Your task to perform on an android device: turn on priority inbox in the gmail app Image 0: 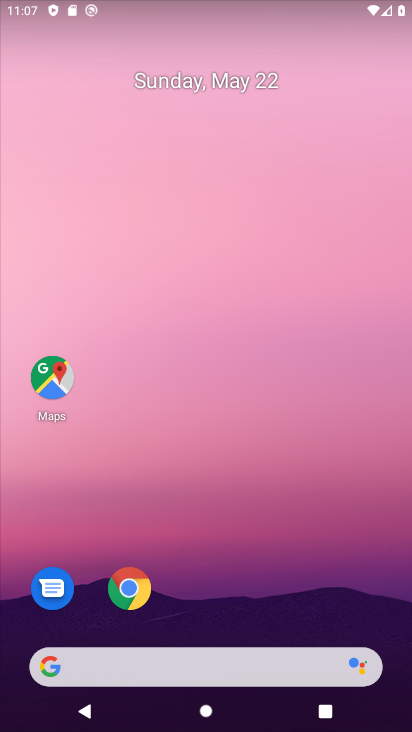
Step 0: drag from (217, 621) to (215, 30)
Your task to perform on an android device: turn on priority inbox in the gmail app Image 1: 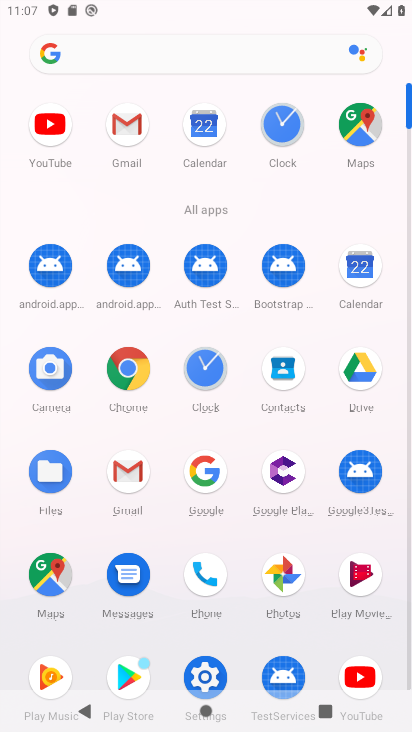
Step 1: click (139, 475)
Your task to perform on an android device: turn on priority inbox in the gmail app Image 2: 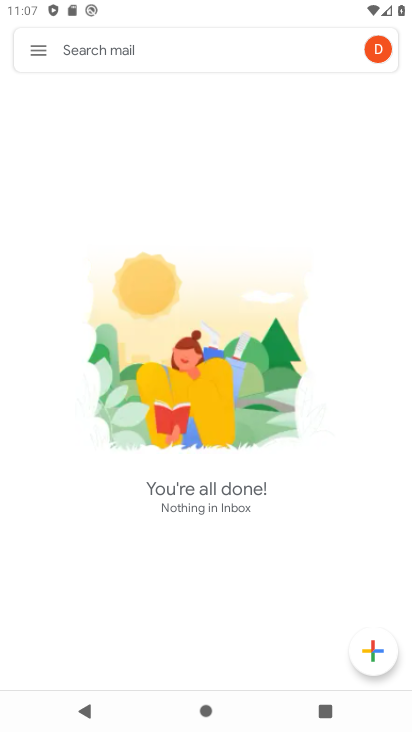
Step 2: click (47, 63)
Your task to perform on an android device: turn on priority inbox in the gmail app Image 3: 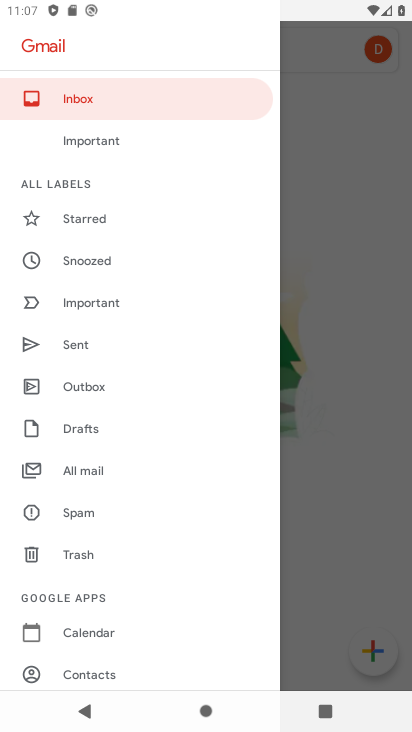
Step 3: drag from (126, 547) to (124, 65)
Your task to perform on an android device: turn on priority inbox in the gmail app Image 4: 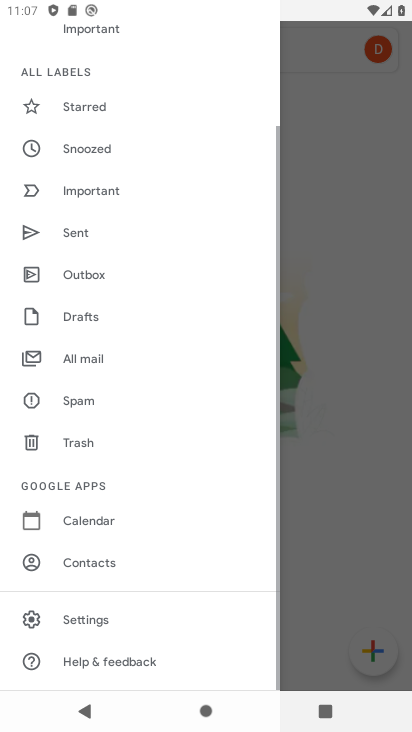
Step 4: click (95, 616)
Your task to perform on an android device: turn on priority inbox in the gmail app Image 5: 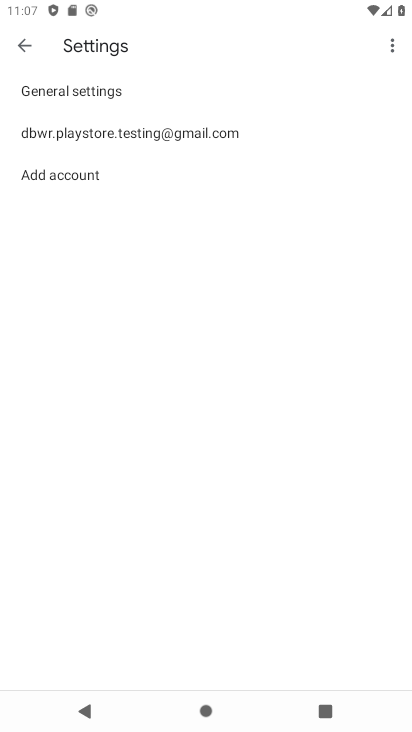
Step 5: click (67, 127)
Your task to perform on an android device: turn on priority inbox in the gmail app Image 6: 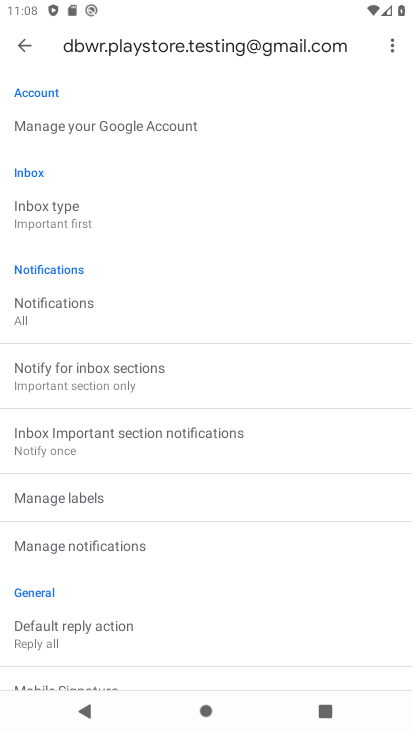
Step 6: click (69, 217)
Your task to perform on an android device: turn on priority inbox in the gmail app Image 7: 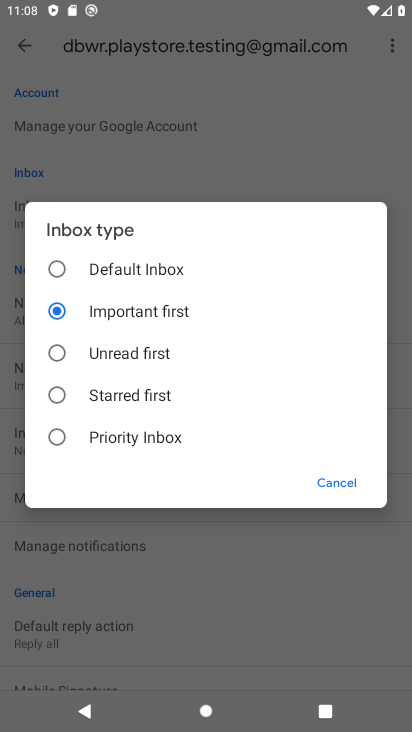
Step 7: click (53, 431)
Your task to perform on an android device: turn on priority inbox in the gmail app Image 8: 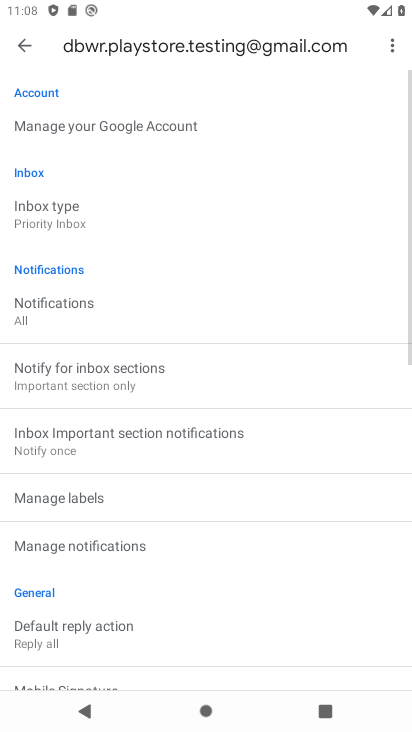
Step 8: task complete